Your task to perform on an android device: What is the news today? Image 0: 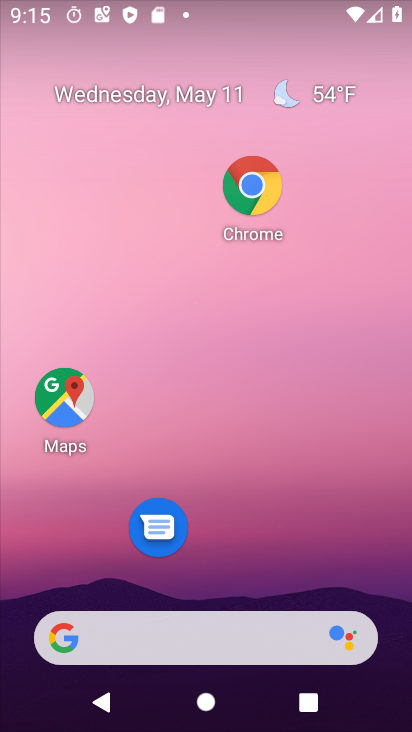
Step 0: drag from (247, 554) to (235, 2)
Your task to perform on an android device: What is the news today? Image 1: 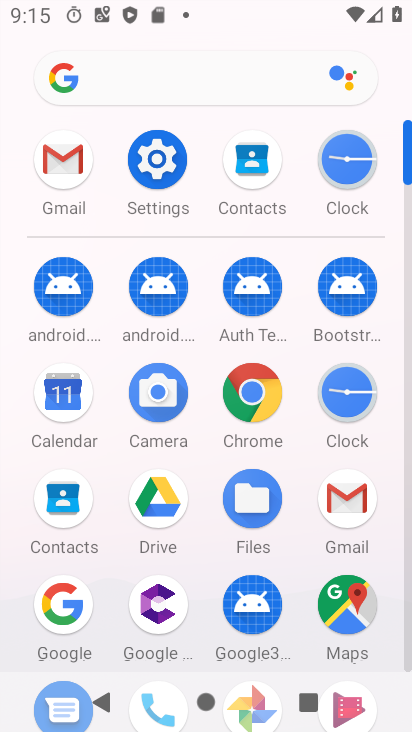
Step 1: click (69, 603)
Your task to perform on an android device: What is the news today? Image 2: 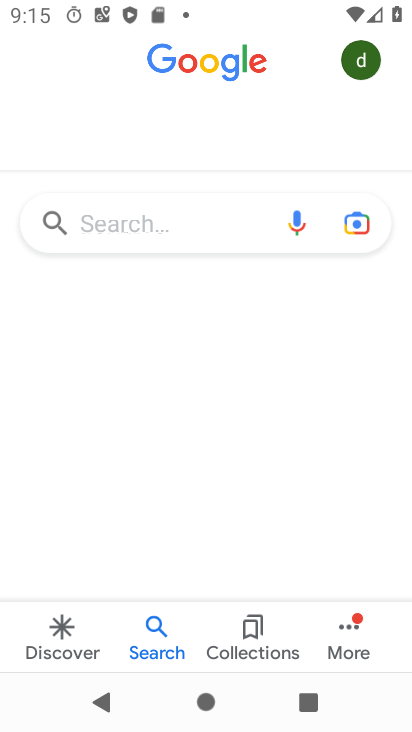
Step 2: click (146, 227)
Your task to perform on an android device: What is the news today? Image 3: 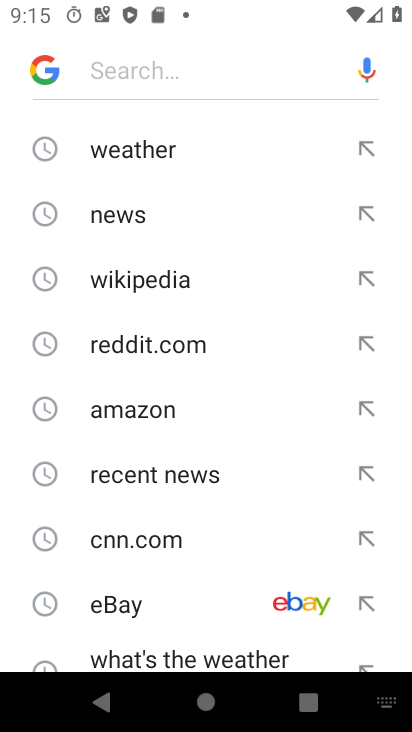
Step 3: click (133, 218)
Your task to perform on an android device: What is the news today? Image 4: 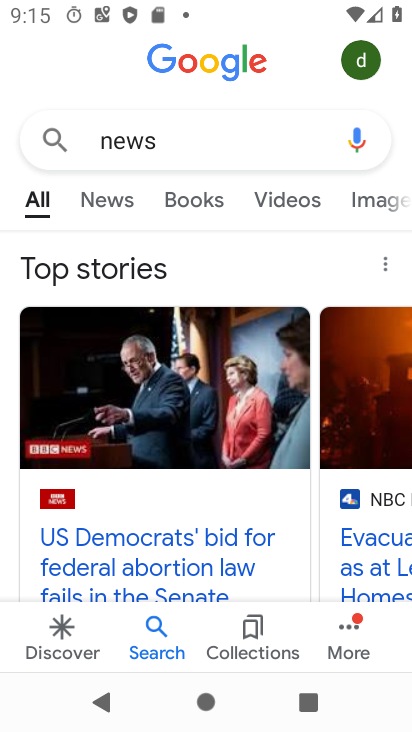
Step 4: task complete